Your task to perform on an android device: toggle notification dots Image 0: 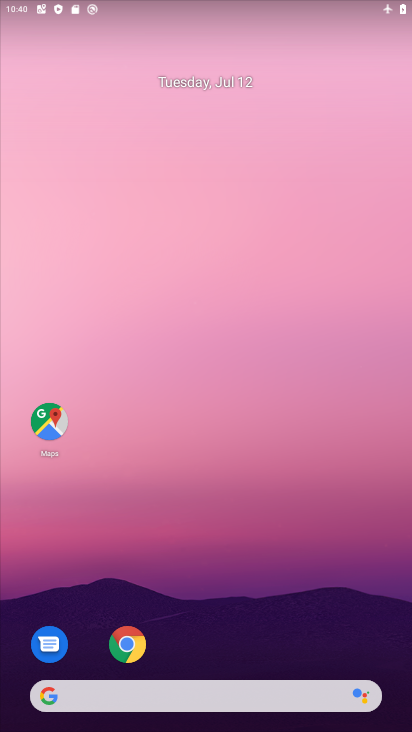
Step 0: drag from (237, 634) to (314, 85)
Your task to perform on an android device: toggle notification dots Image 1: 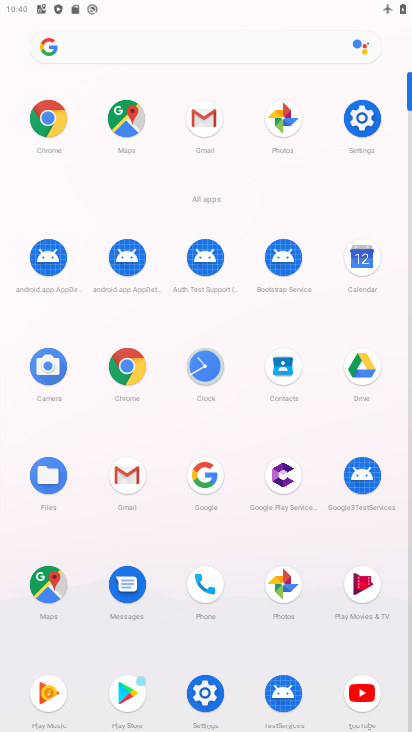
Step 1: click (361, 126)
Your task to perform on an android device: toggle notification dots Image 2: 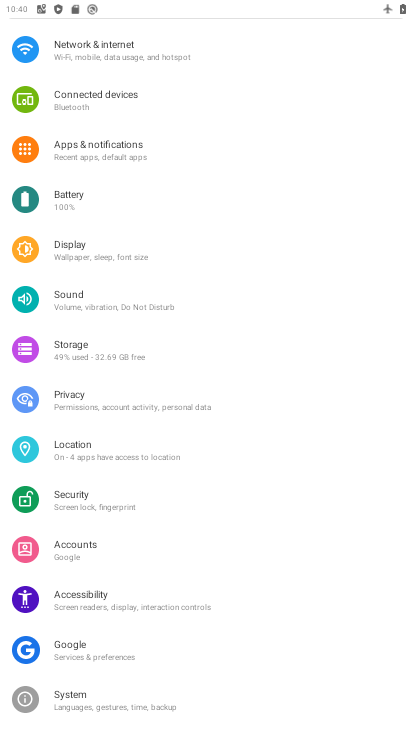
Step 2: click (130, 146)
Your task to perform on an android device: toggle notification dots Image 3: 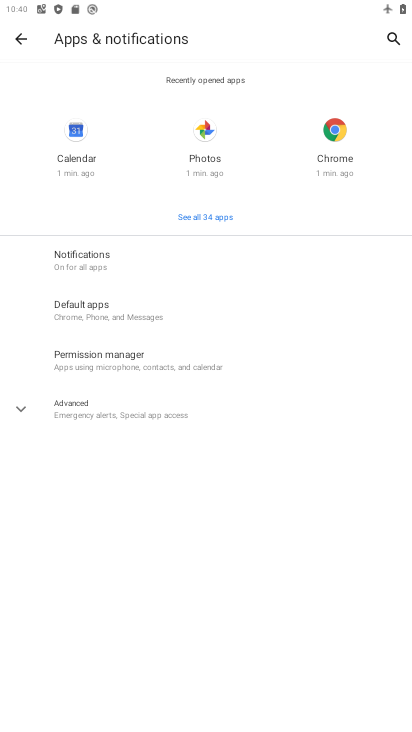
Step 3: click (58, 245)
Your task to perform on an android device: toggle notification dots Image 4: 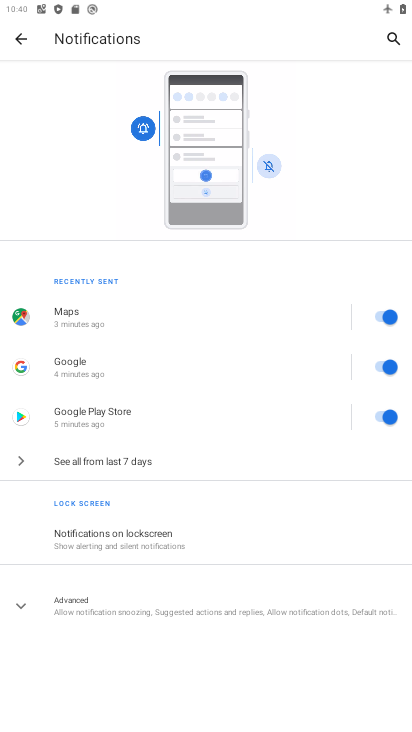
Step 4: click (94, 594)
Your task to perform on an android device: toggle notification dots Image 5: 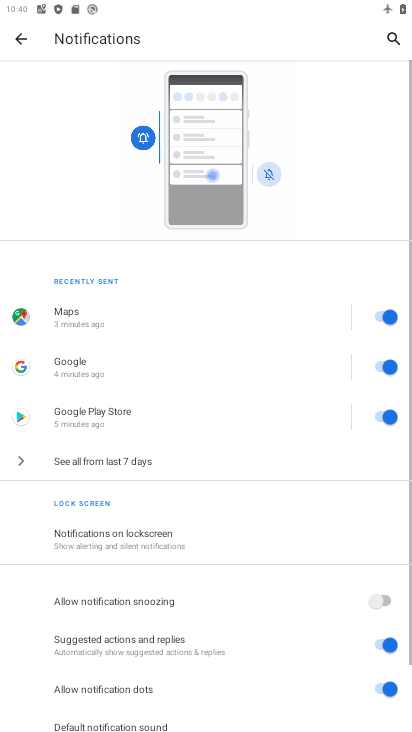
Step 5: drag from (94, 593) to (90, 338)
Your task to perform on an android device: toggle notification dots Image 6: 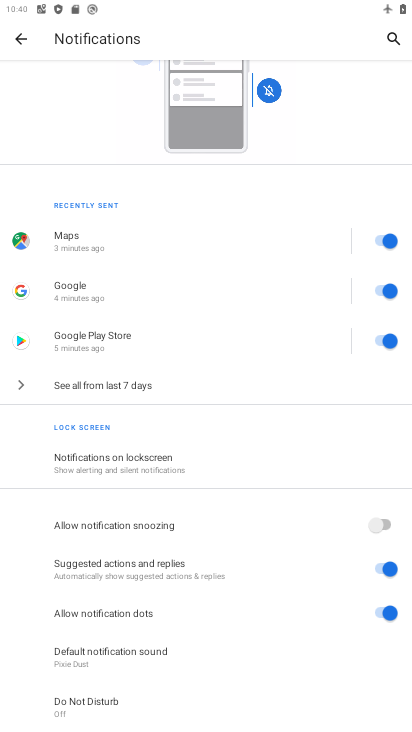
Step 6: click (382, 613)
Your task to perform on an android device: toggle notification dots Image 7: 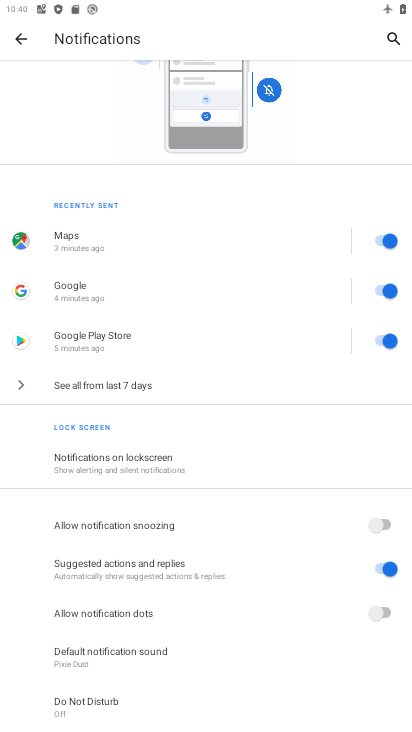
Step 7: task complete